Your task to perform on an android device: turn pop-ups off in chrome Image 0: 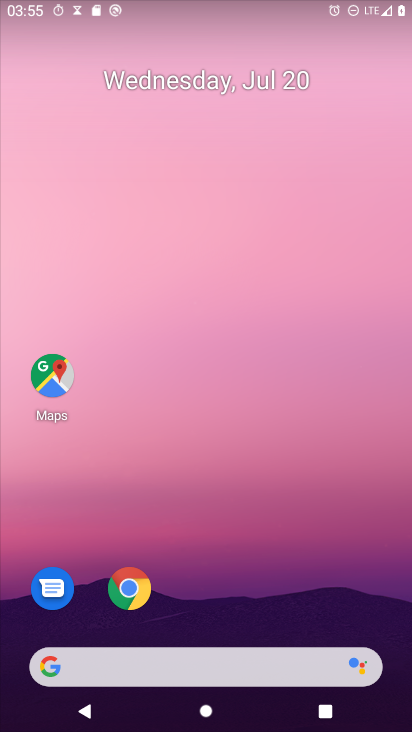
Step 0: click (142, 593)
Your task to perform on an android device: turn pop-ups off in chrome Image 1: 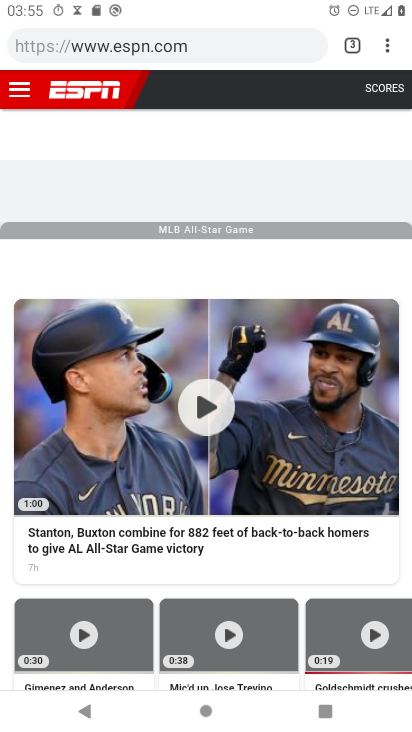
Step 1: click (380, 41)
Your task to perform on an android device: turn pop-ups off in chrome Image 2: 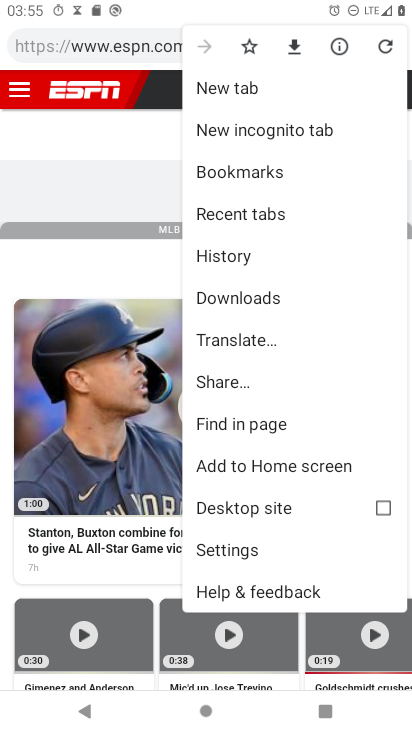
Step 2: click (254, 547)
Your task to perform on an android device: turn pop-ups off in chrome Image 3: 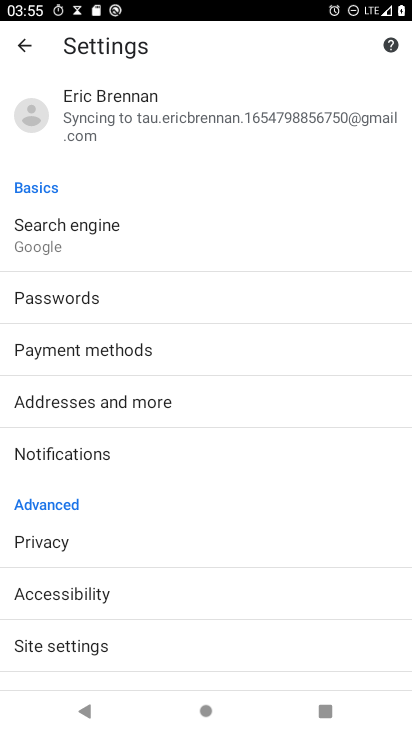
Step 3: click (41, 641)
Your task to perform on an android device: turn pop-ups off in chrome Image 4: 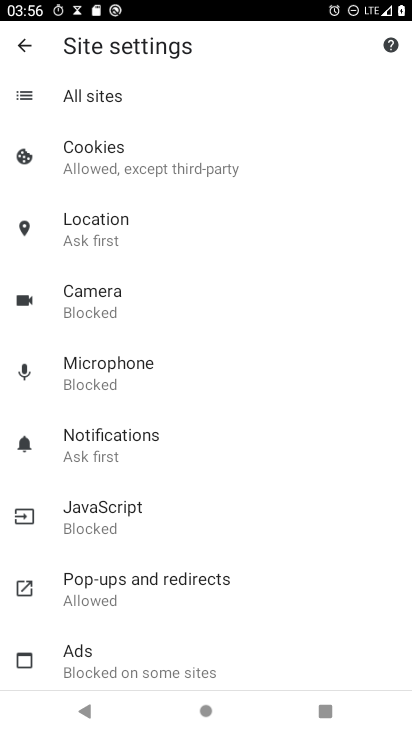
Step 4: click (110, 589)
Your task to perform on an android device: turn pop-ups off in chrome Image 5: 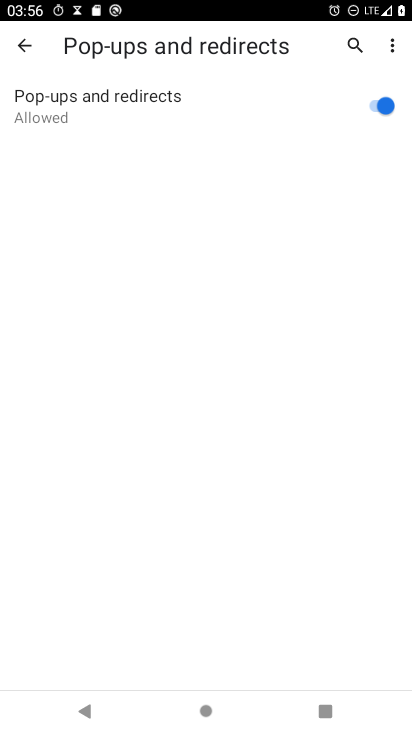
Step 5: click (379, 101)
Your task to perform on an android device: turn pop-ups off in chrome Image 6: 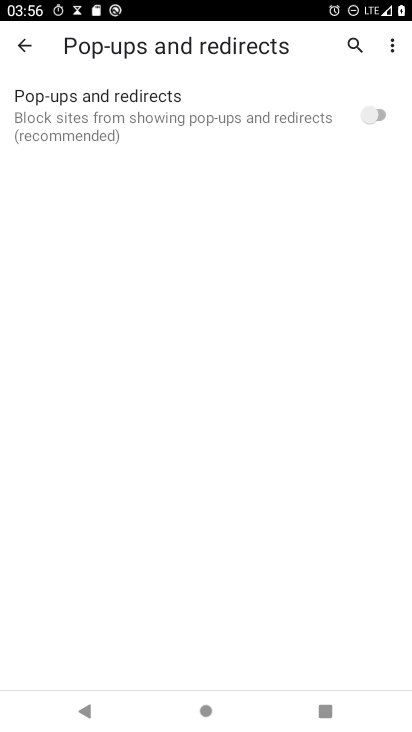
Step 6: task complete